Your task to perform on an android device: toggle javascript in the chrome app Image 0: 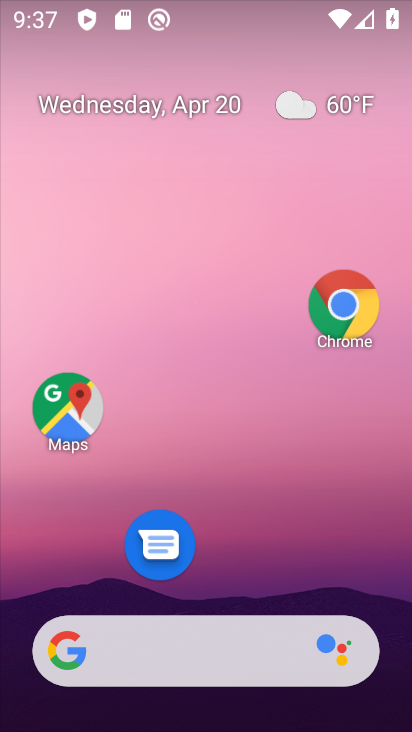
Step 0: drag from (284, 560) to (320, 21)
Your task to perform on an android device: toggle javascript in the chrome app Image 1: 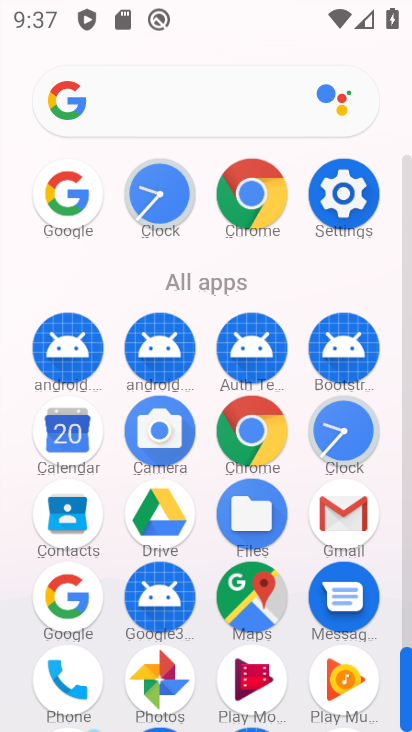
Step 1: click (253, 194)
Your task to perform on an android device: toggle javascript in the chrome app Image 2: 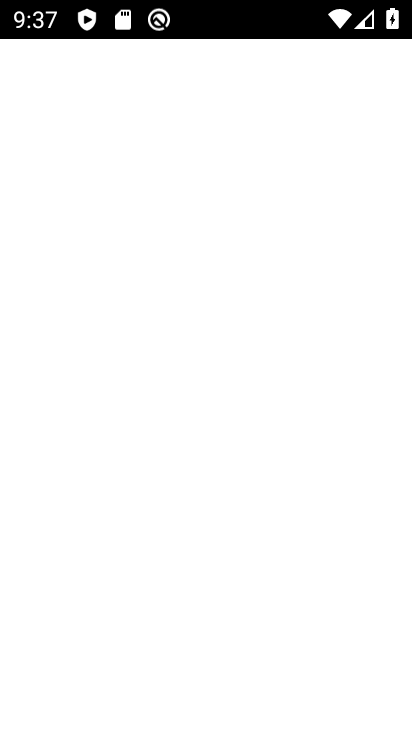
Step 2: click (253, 194)
Your task to perform on an android device: toggle javascript in the chrome app Image 3: 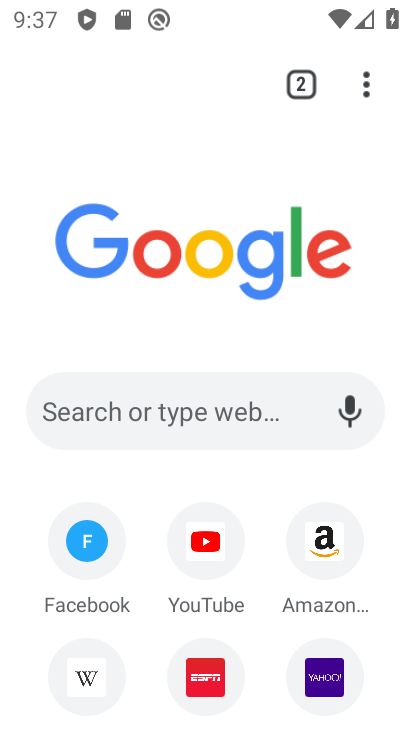
Step 3: click (362, 95)
Your task to perform on an android device: toggle javascript in the chrome app Image 4: 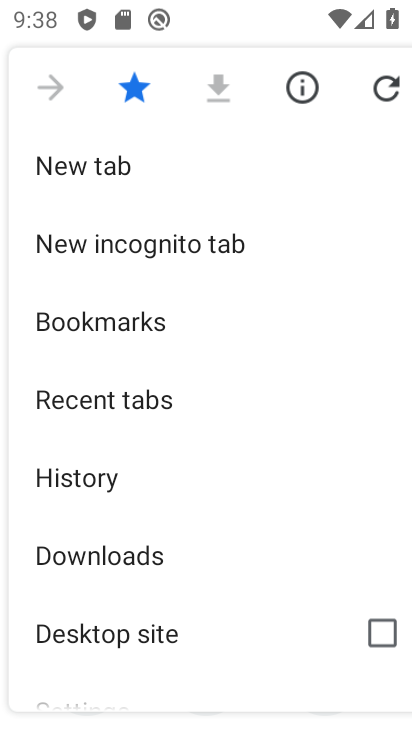
Step 4: drag from (170, 540) to (212, 272)
Your task to perform on an android device: toggle javascript in the chrome app Image 5: 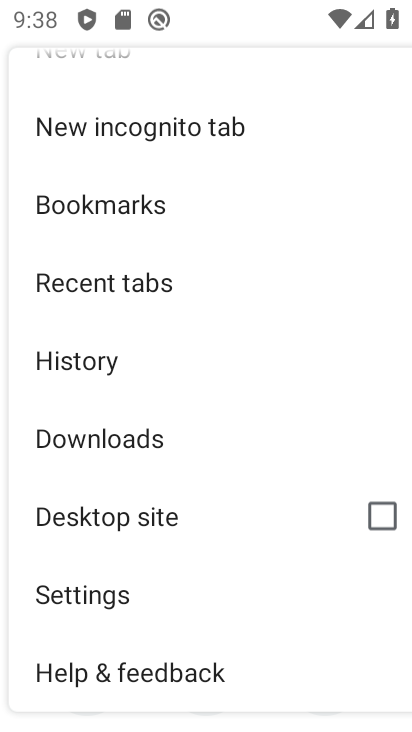
Step 5: drag from (192, 506) to (186, 335)
Your task to perform on an android device: toggle javascript in the chrome app Image 6: 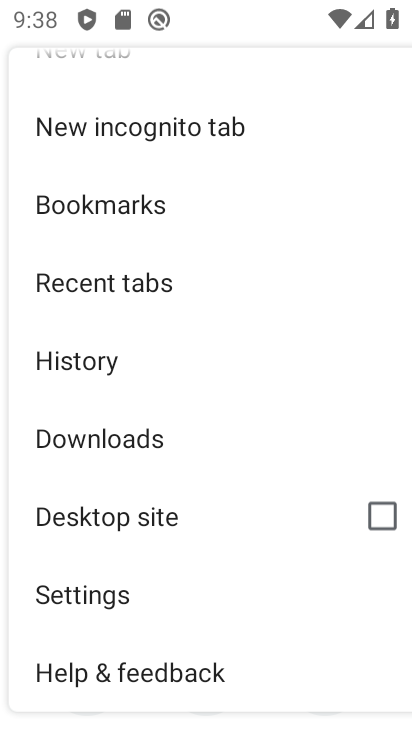
Step 6: click (138, 591)
Your task to perform on an android device: toggle javascript in the chrome app Image 7: 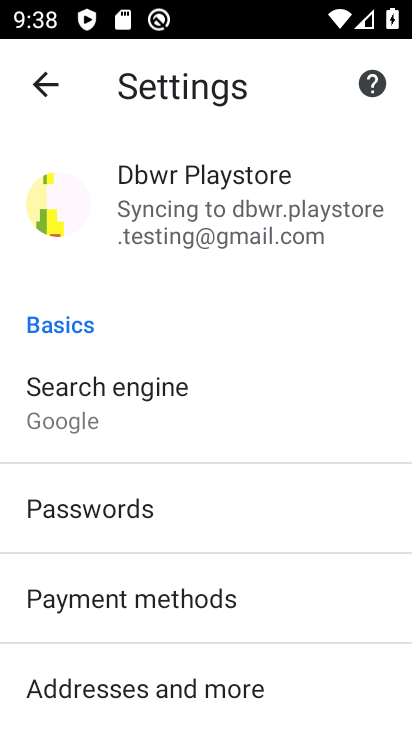
Step 7: drag from (149, 604) to (156, 283)
Your task to perform on an android device: toggle javascript in the chrome app Image 8: 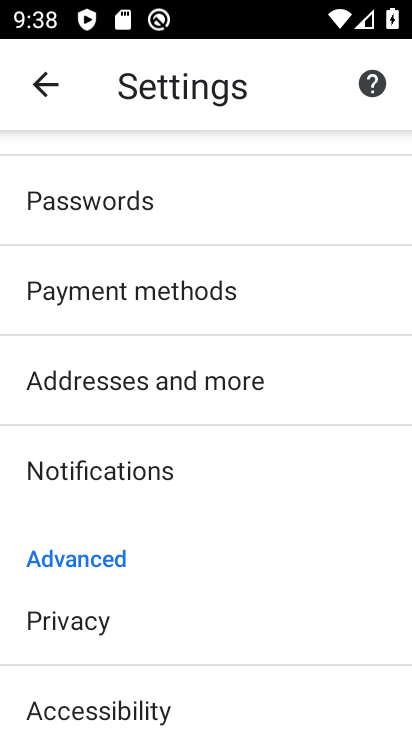
Step 8: drag from (168, 542) to (189, 228)
Your task to perform on an android device: toggle javascript in the chrome app Image 9: 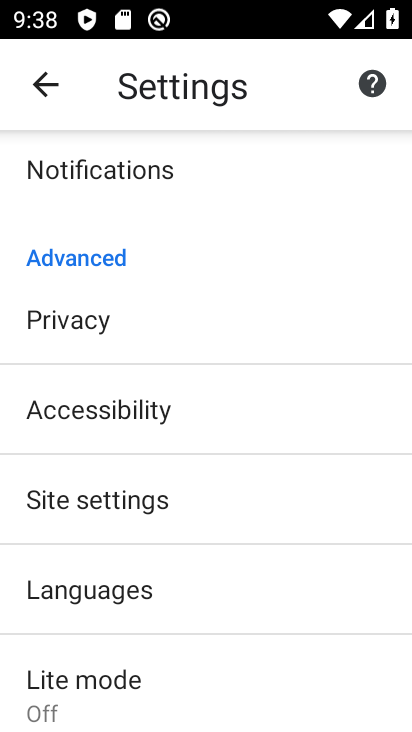
Step 9: drag from (202, 512) to (226, 290)
Your task to perform on an android device: toggle javascript in the chrome app Image 10: 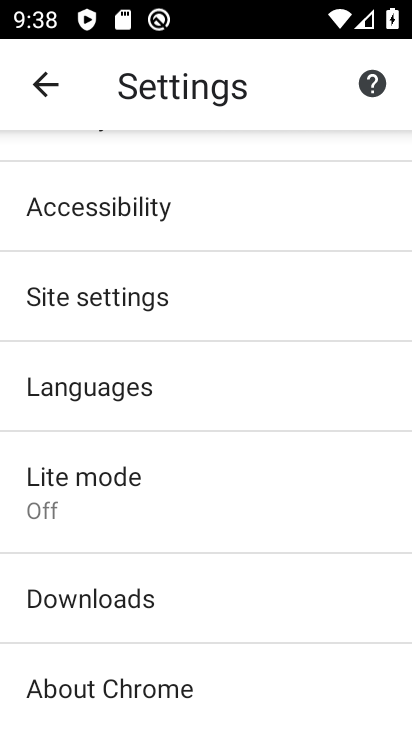
Step 10: drag from (195, 528) to (202, 278)
Your task to perform on an android device: toggle javascript in the chrome app Image 11: 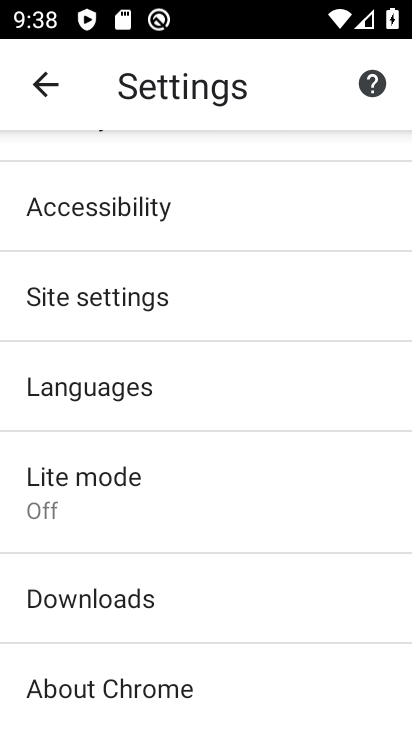
Step 11: click (155, 296)
Your task to perform on an android device: toggle javascript in the chrome app Image 12: 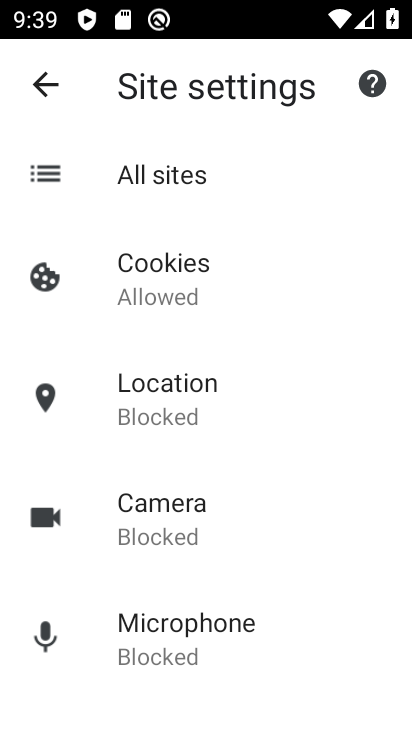
Step 12: drag from (183, 461) to (207, 205)
Your task to perform on an android device: toggle javascript in the chrome app Image 13: 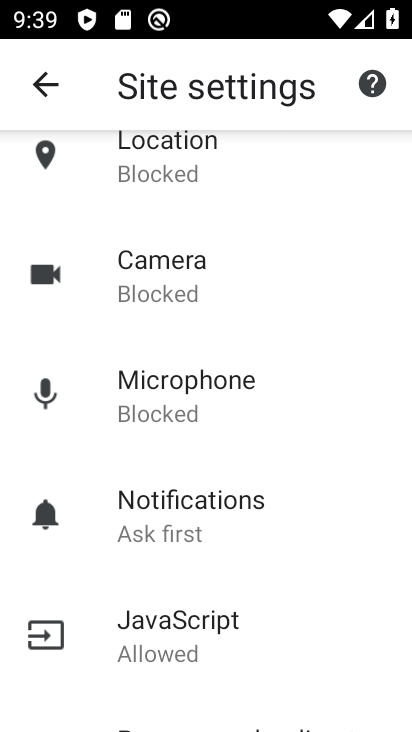
Step 13: drag from (189, 568) to (204, 311)
Your task to perform on an android device: toggle javascript in the chrome app Image 14: 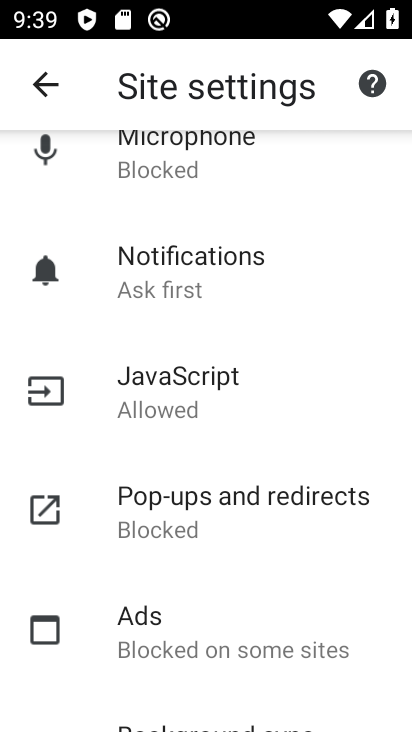
Step 14: click (210, 414)
Your task to perform on an android device: toggle javascript in the chrome app Image 15: 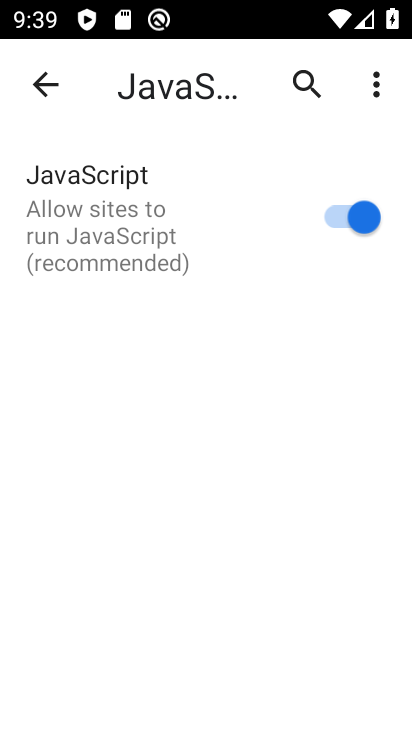
Step 15: click (341, 226)
Your task to perform on an android device: toggle javascript in the chrome app Image 16: 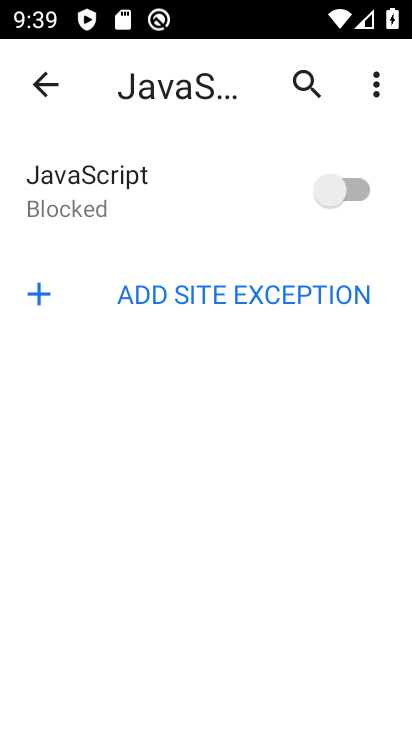
Step 16: task complete